Your task to perform on an android device: see tabs open on other devices in the chrome app Image 0: 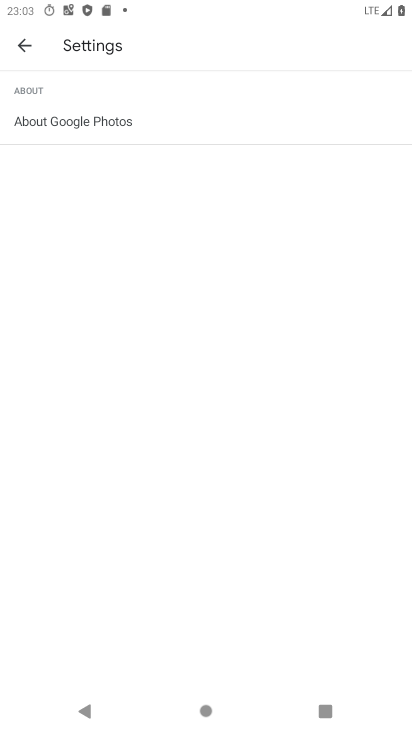
Step 0: press home button
Your task to perform on an android device: see tabs open on other devices in the chrome app Image 1: 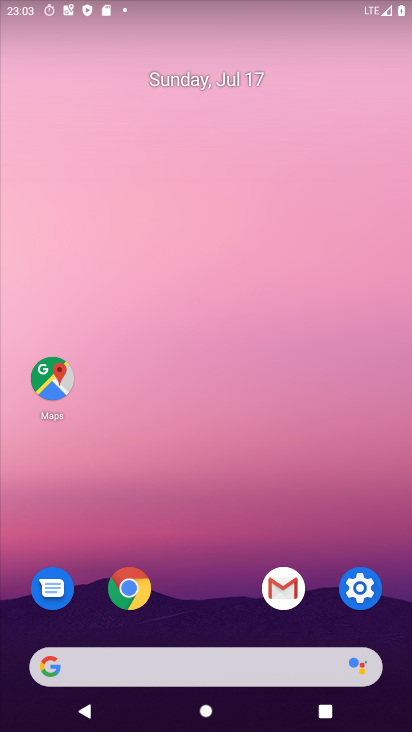
Step 1: click (154, 575)
Your task to perform on an android device: see tabs open on other devices in the chrome app Image 2: 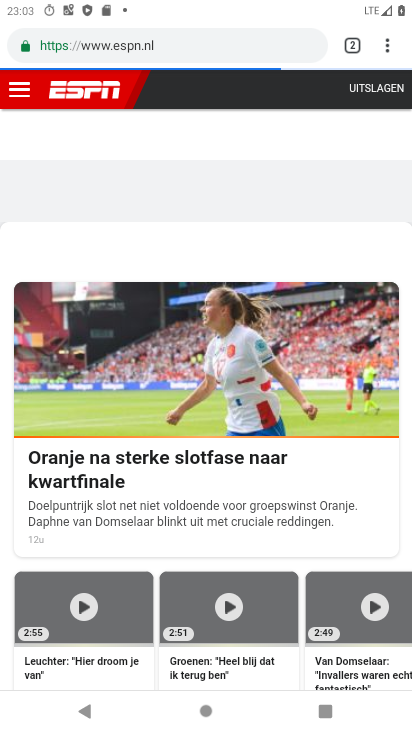
Step 2: click (397, 53)
Your task to perform on an android device: see tabs open on other devices in the chrome app Image 3: 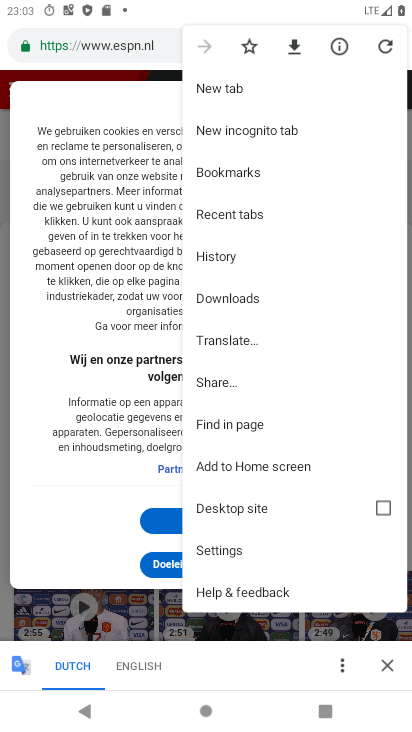
Step 3: click (255, 96)
Your task to perform on an android device: see tabs open on other devices in the chrome app Image 4: 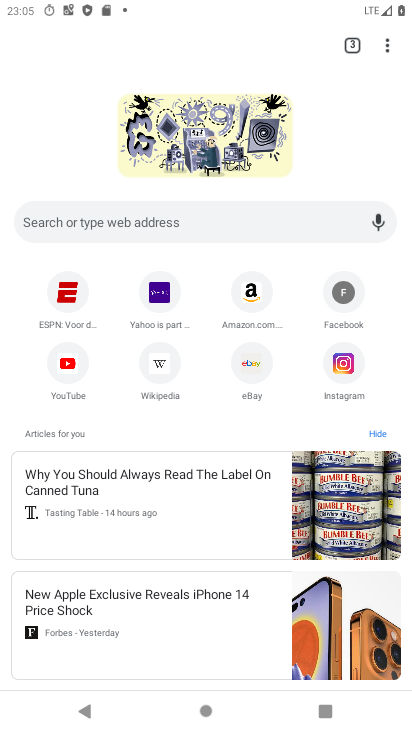
Step 4: task complete